Your task to perform on an android device: open wifi settings Image 0: 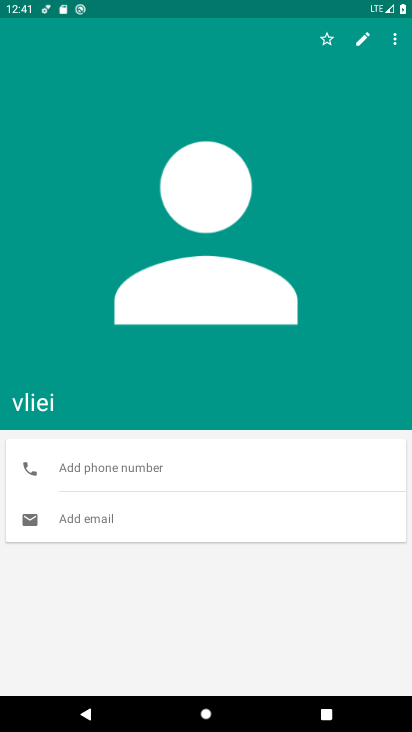
Step 0: press home button
Your task to perform on an android device: open wifi settings Image 1: 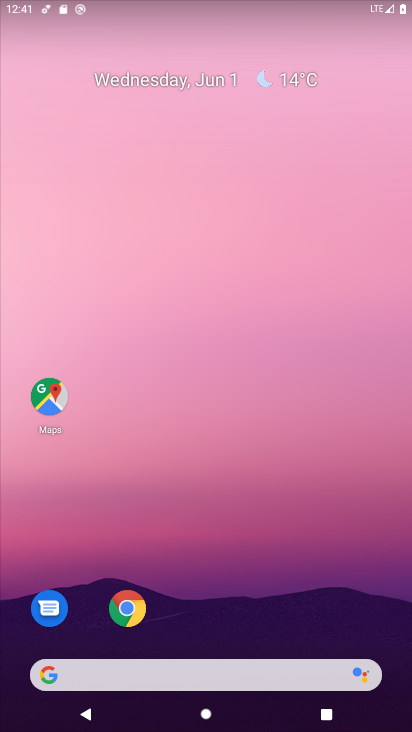
Step 1: drag from (218, 611) to (262, 171)
Your task to perform on an android device: open wifi settings Image 2: 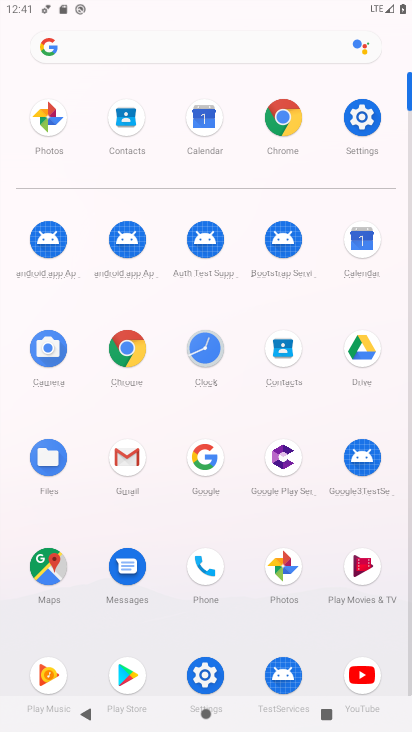
Step 2: click (364, 137)
Your task to perform on an android device: open wifi settings Image 3: 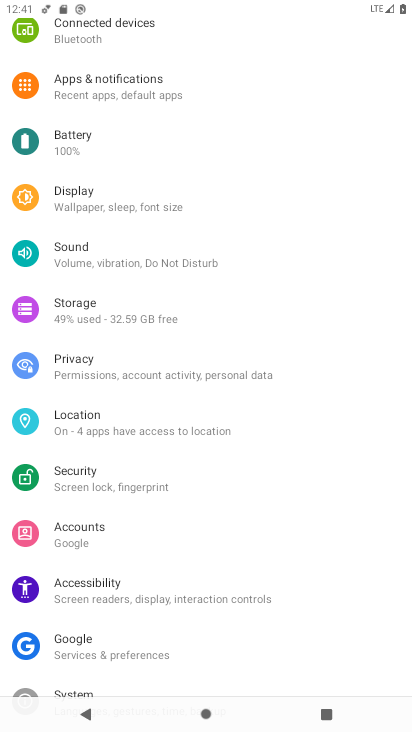
Step 3: drag from (129, 120) to (133, 397)
Your task to perform on an android device: open wifi settings Image 4: 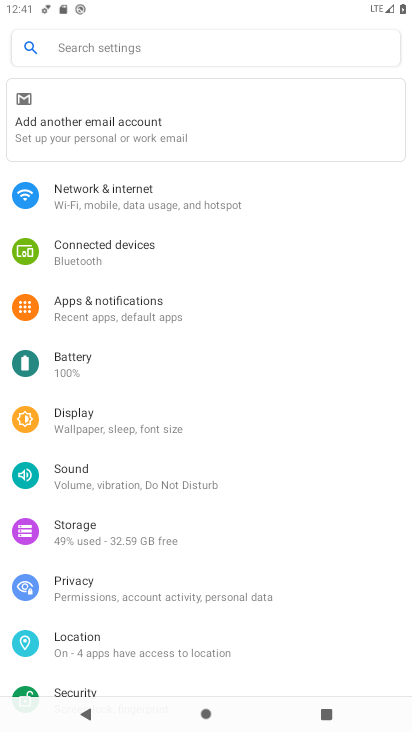
Step 4: click (138, 201)
Your task to perform on an android device: open wifi settings Image 5: 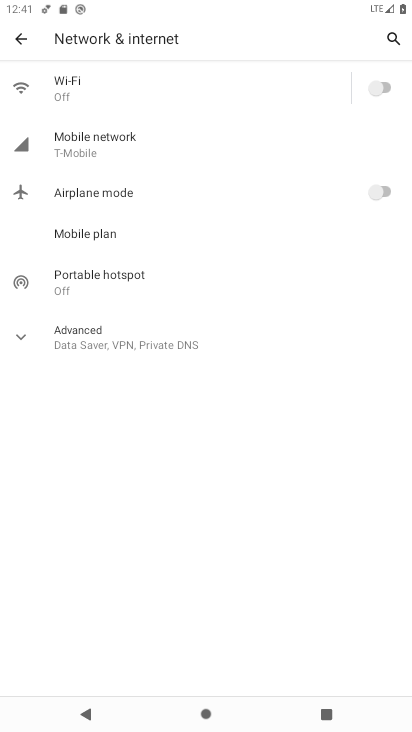
Step 5: click (111, 80)
Your task to perform on an android device: open wifi settings Image 6: 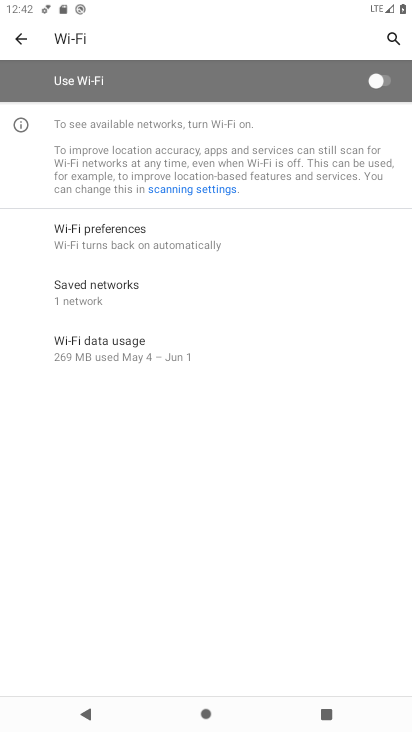
Step 6: task complete